Your task to perform on an android device: Open Youtube and go to "Your channel" Image 0: 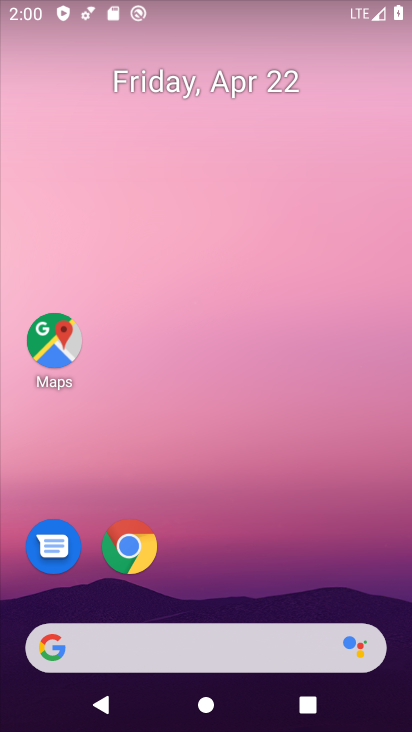
Step 0: drag from (246, 553) to (289, 146)
Your task to perform on an android device: Open Youtube and go to "Your channel" Image 1: 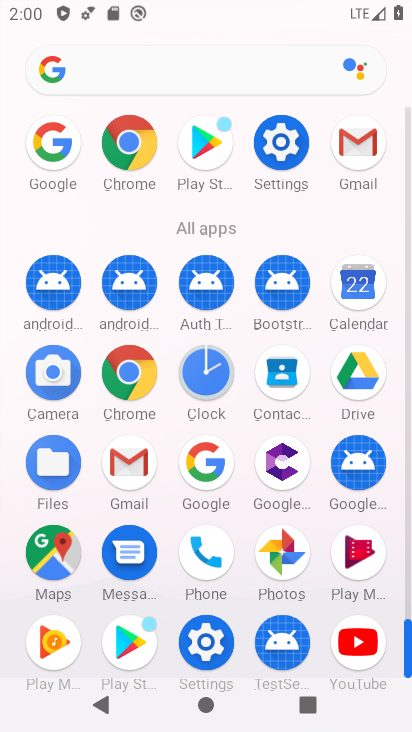
Step 1: click (369, 649)
Your task to perform on an android device: Open Youtube and go to "Your channel" Image 2: 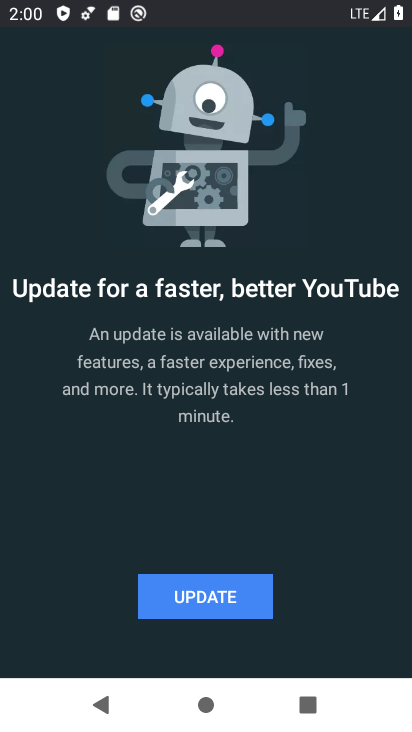
Step 2: task complete